Your task to perform on an android device: turn vacation reply on in the gmail app Image 0: 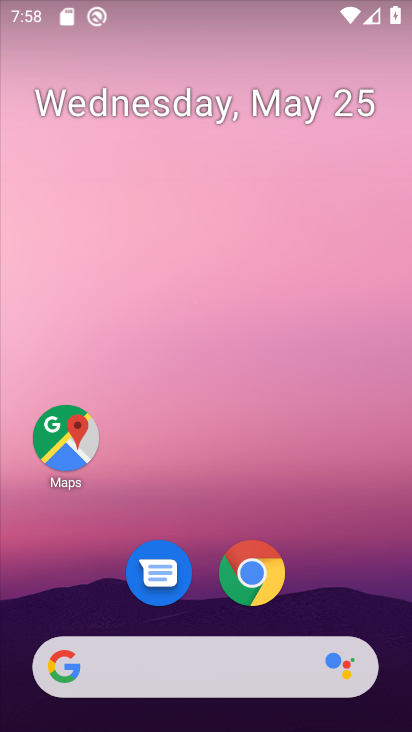
Step 0: drag from (387, 706) to (377, 192)
Your task to perform on an android device: turn vacation reply on in the gmail app Image 1: 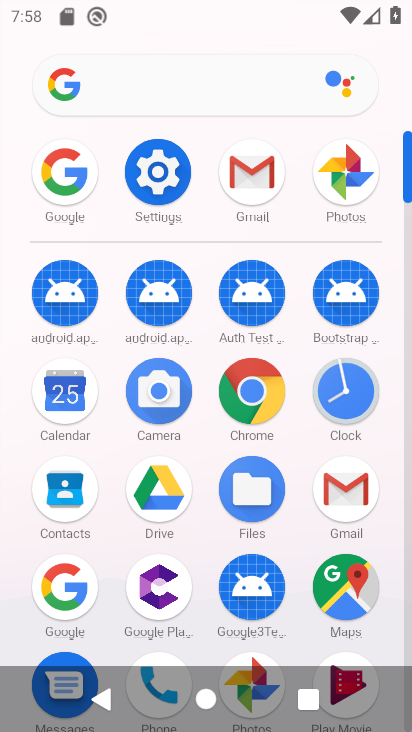
Step 1: click (258, 170)
Your task to perform on an android device: turn vacation reply on in the gmail app Image 2: 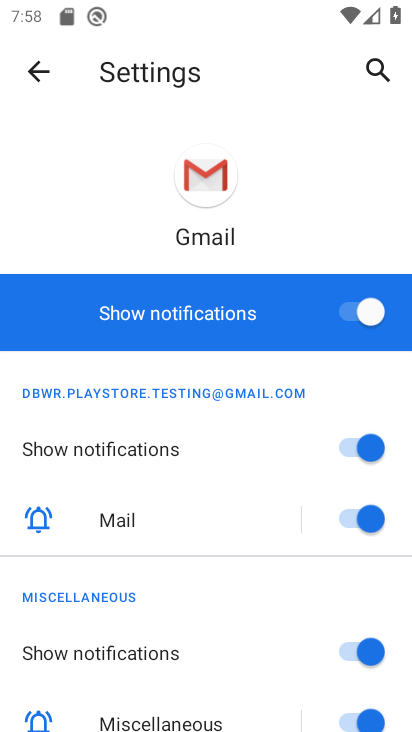
Step 2: click (23, 71)
Your task to perform on an android device: turn vacation reply on in the gmail app Image 3: 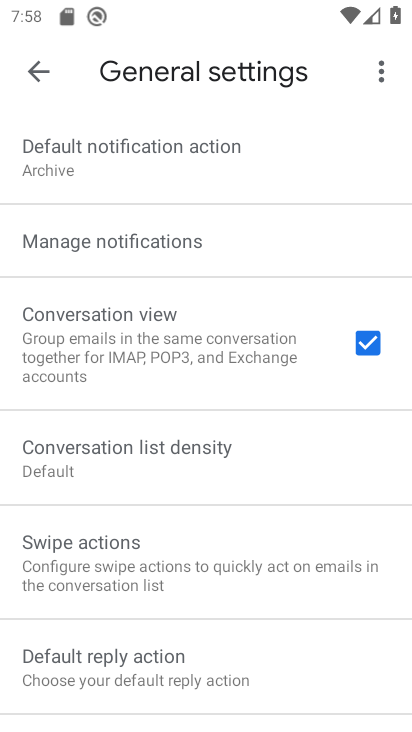
Step 3: click (36, 72)
Your task to perform on an android device: turn vacation reply on in the gmail app Image 4: 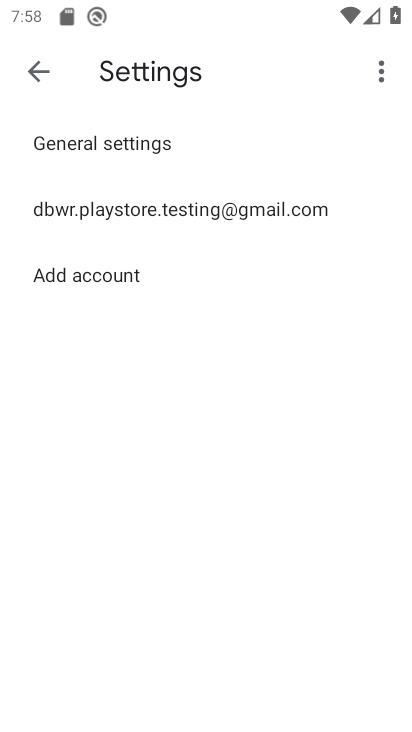
Step 4: click (113, 214)
Your task to perform on an android device: turn vacation reply on in the gmail app Image 5: 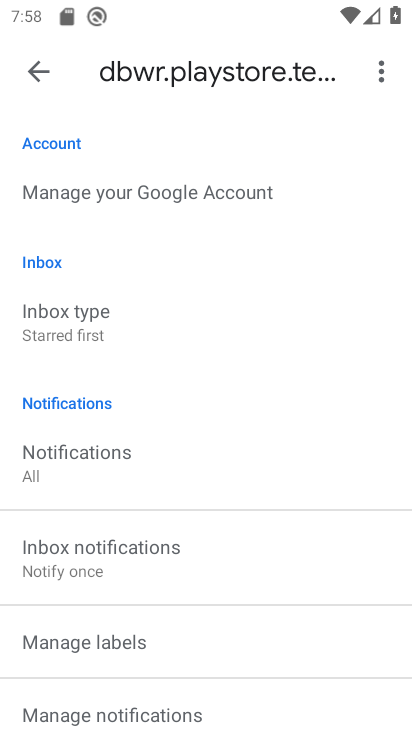
Step 5: drag from (290, 711) to (296, 376)
Your task to perform on an android device: turn vacation reply on in the gmail app Image 6: 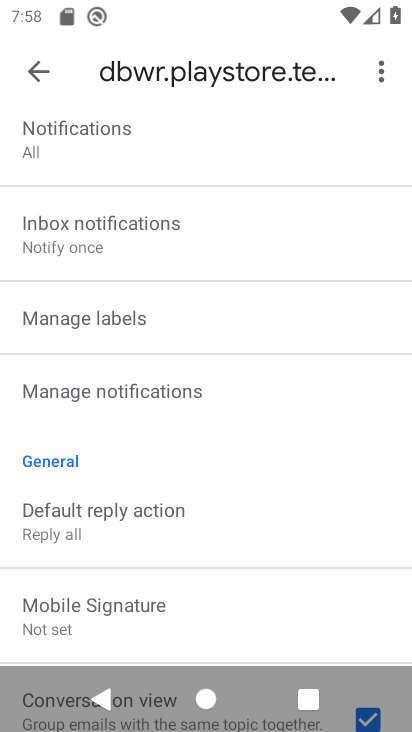
Step 6: drag from (271, 638) to (293, 335)
Your task to perform on an android device: turn vacation reply on in the gmail app Image 7: 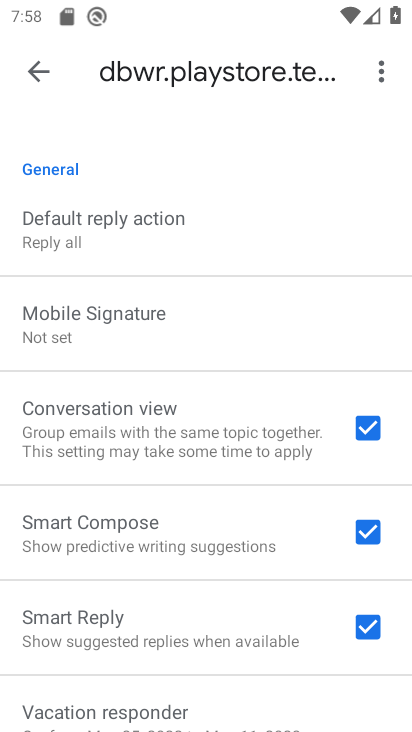
Step 7: drag from (254, 678) to (268, 419)
Your task to perform on an android device: turn vacation reply on in the gmail app Image 8: 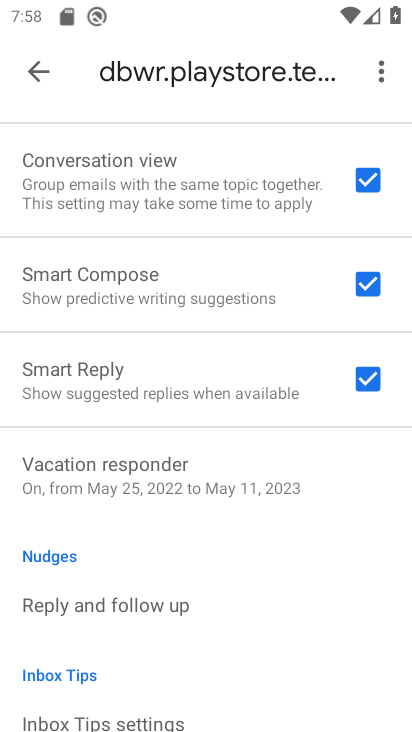
Step 8: click (163, 467)
Your task to perform on an android device: turn vacation reply on in the gmail app Image 9: 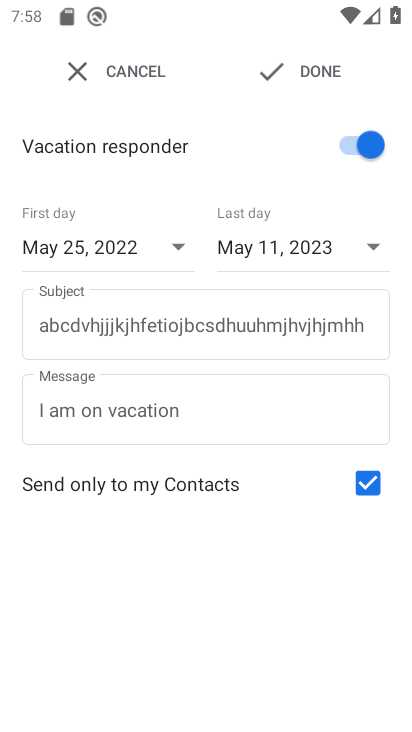
Step 9: task complete